Your task to perform on an android device: find snoozed emails in the gmail app Image 0: 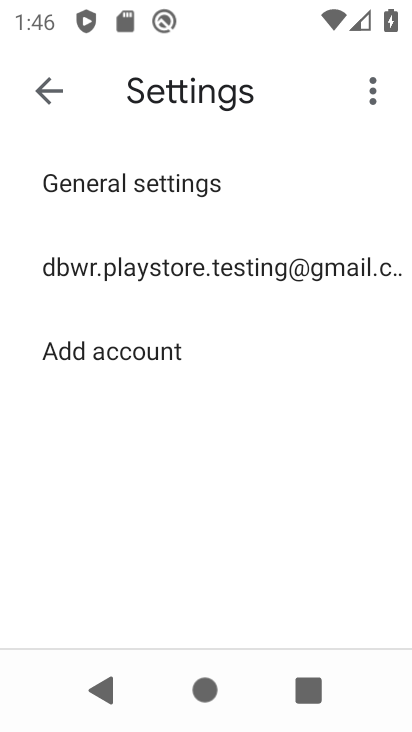
Step 0: press home button
Your task to perform on an android device: find snoozed emails in the gmail app Image 1: 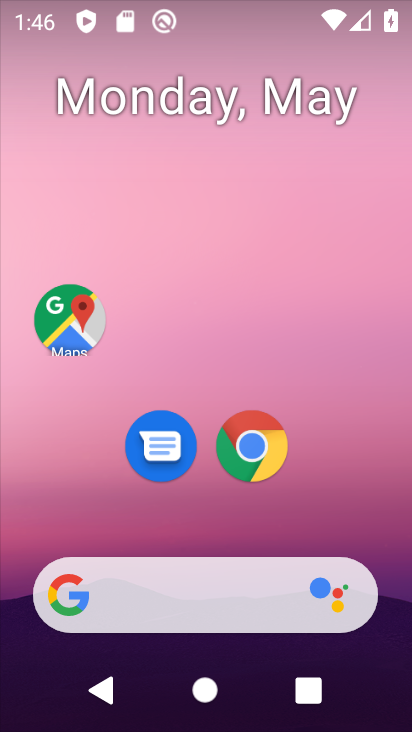
Step 1: drag from (327, 487) to (329, 0)
Your task to perform on an android device: find snoozed emails in the gmail app Image 2: 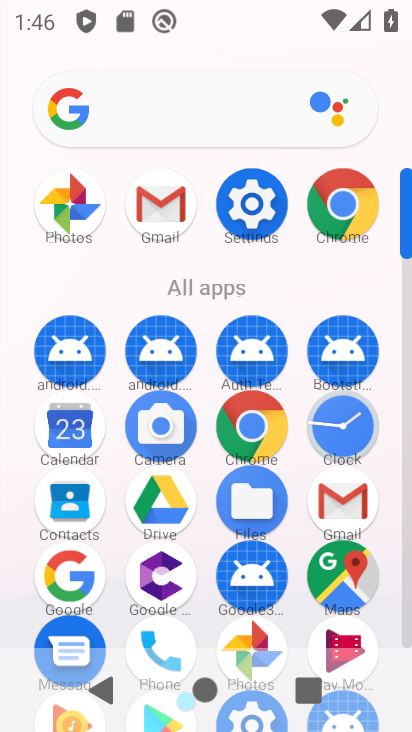
Step 2: click (172, 216)
Your task to perform on an android device: find snoozed emails in the gmail app Image 3: 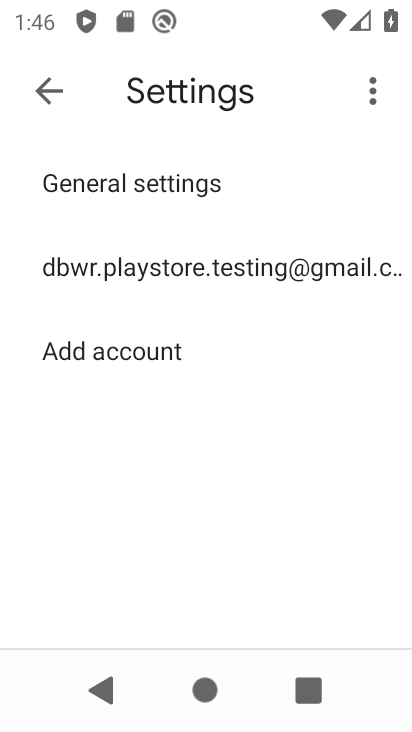
Step 3: click (268, 274)
Your task to perform on an android device: find snoozed emails in the gmail app Image 4: 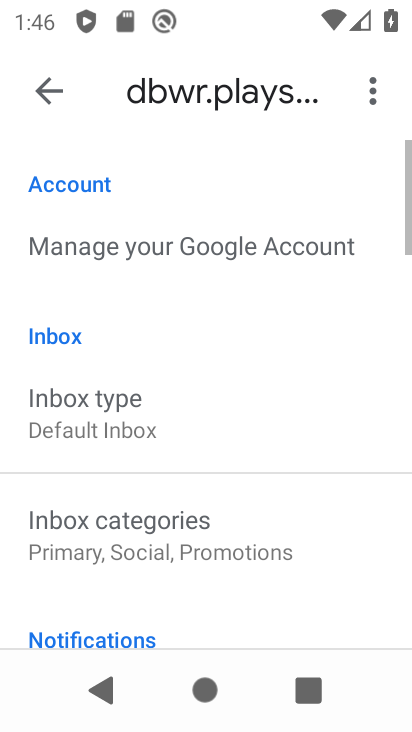
Step 4: click (41, 87)
Your task to perform on an android device: find snoozed emails in the gmail app Image 5: 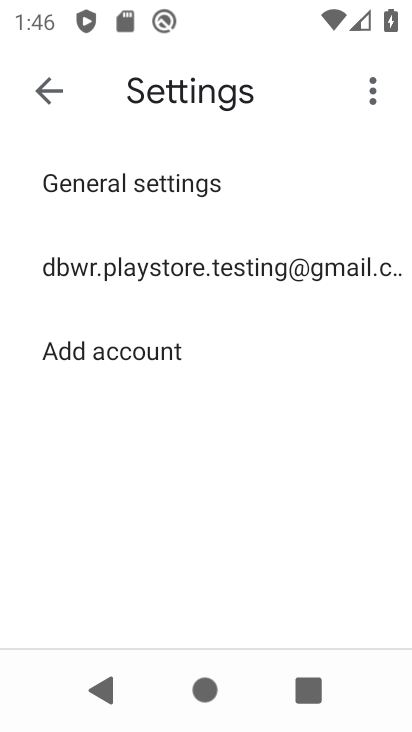
Step 5: click (41, 87)
Your task to perform on an android device: find snoozed emails in the gmail app Image 6: 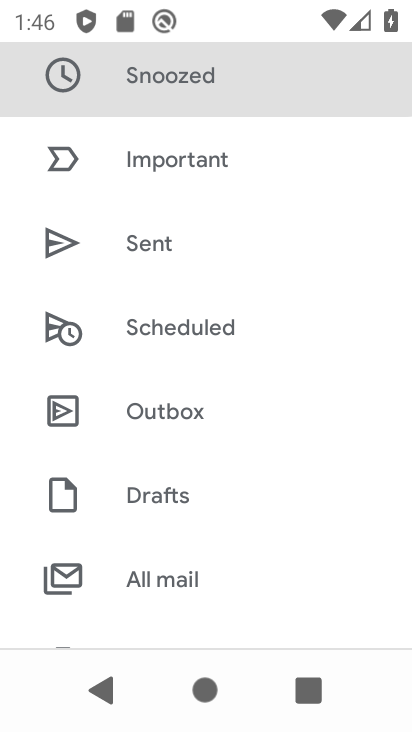
Step 6: click (178, 80)
Your task to perform on an android device: find snoozed emails in the gmail app Image 7: 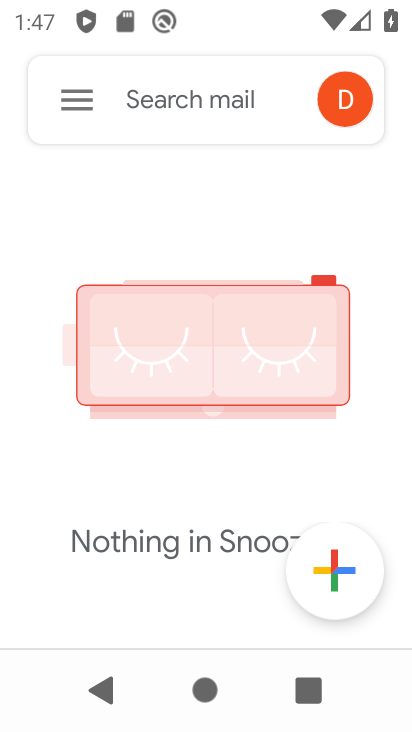
Step 7: task complete